Your task to perform on an android device: turn off translation in the chrome app Image 0: 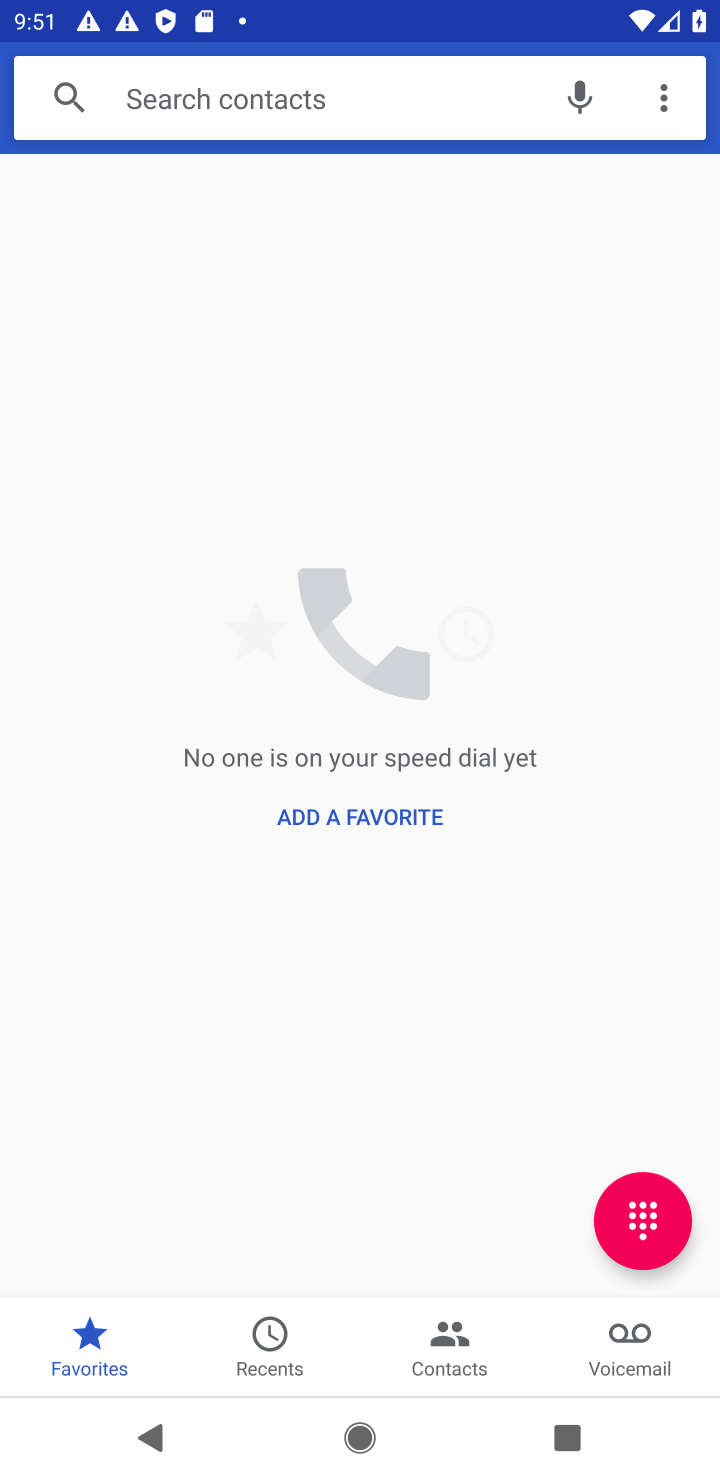
Step 0: press home button
Your task to perform on an android device: turn off translation in the chrome app Image 1: 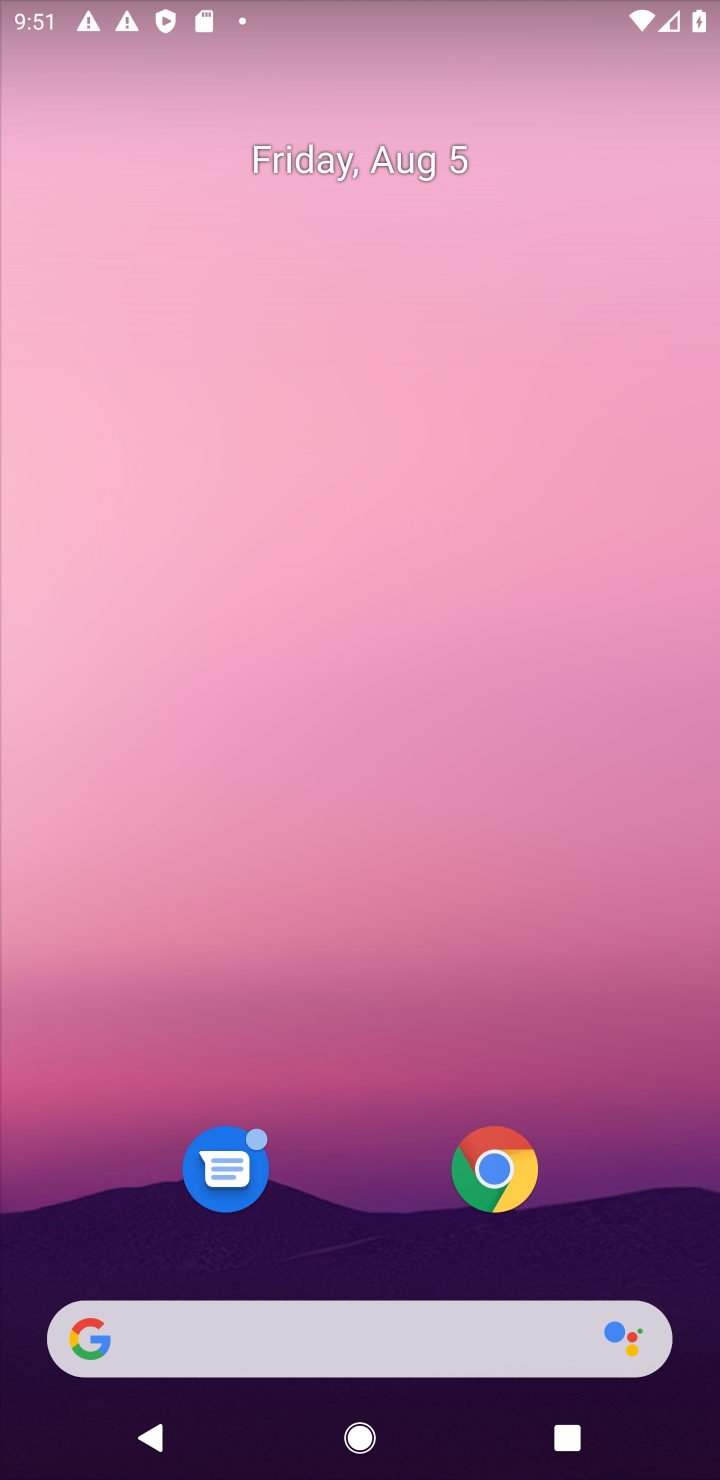
Step 1: click (492, 1169)
Your task to perform on an android device: turn off translation in the chrome app Image 2: 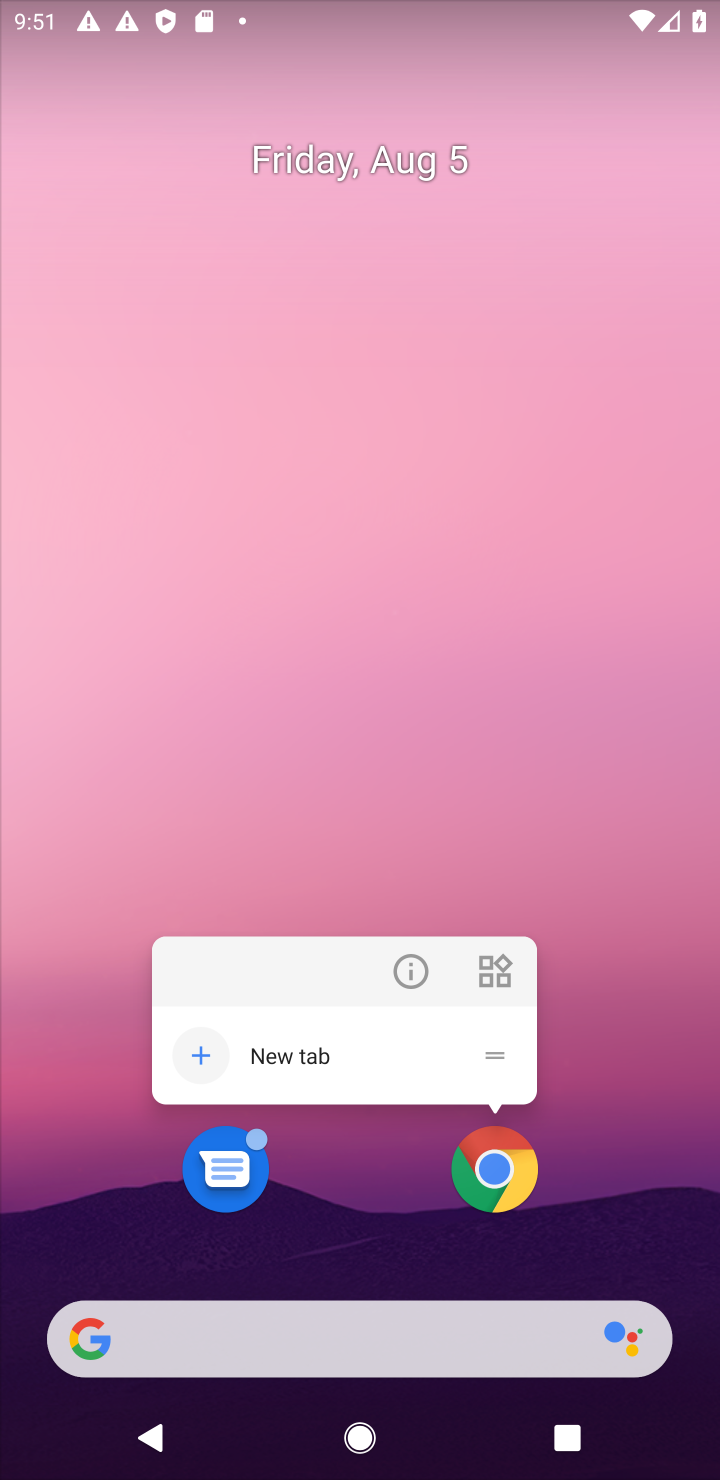
Step 2: click (497, 1172)
Your task to perform on an android device: turn off translation in the chrome app Image 3: 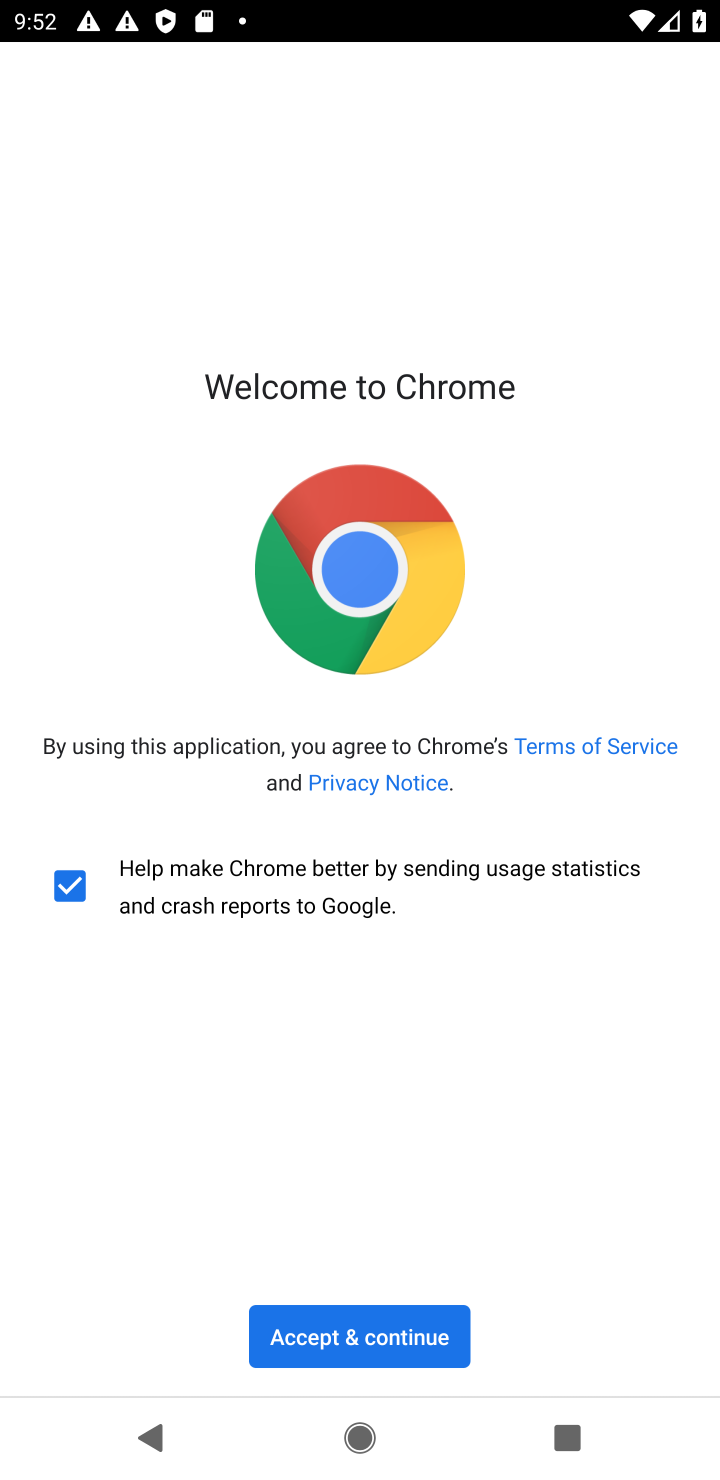
Step 3: click (340, 1348)
Your task to perform on an android device: turn off translation in the chrome app Image 4: 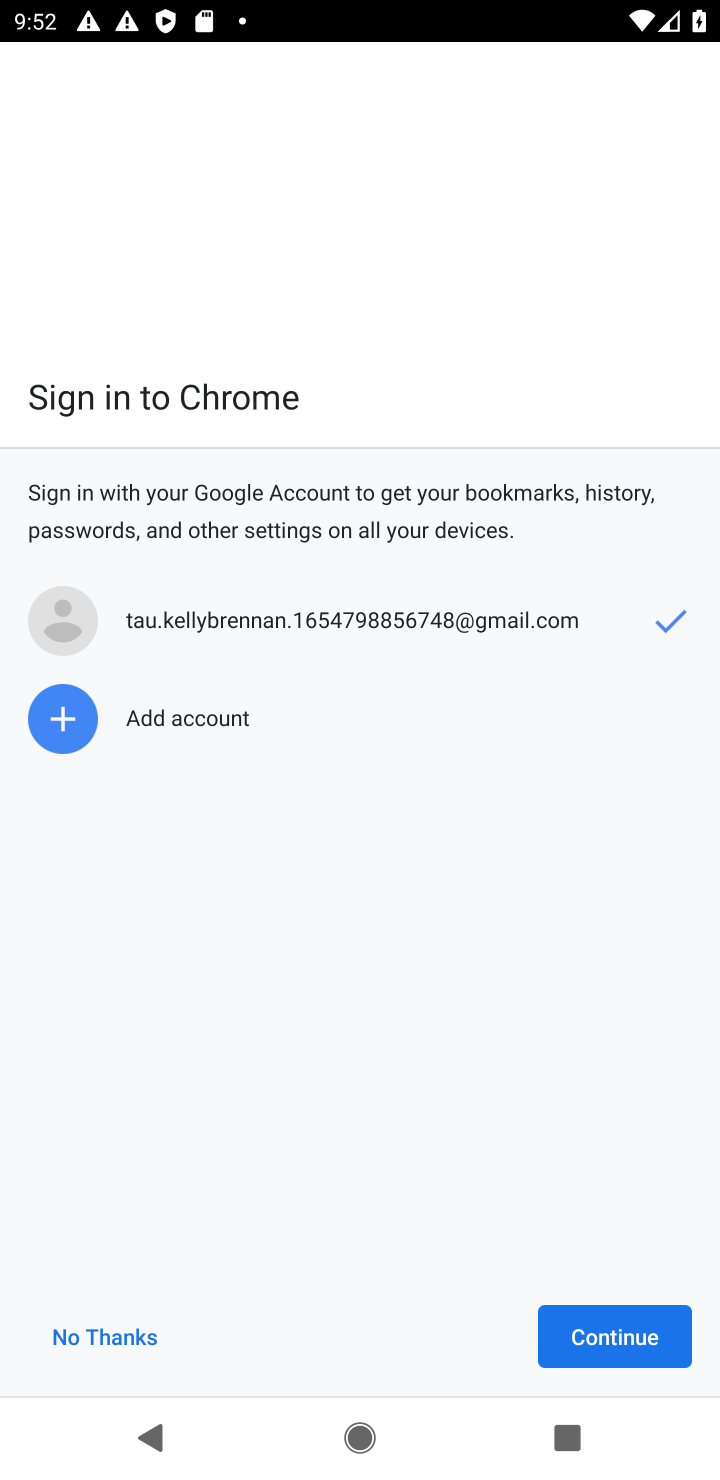
Step 4: click (610, 1337)
Your task to perform on an android device: turn off translation in the chrome app Image 5: 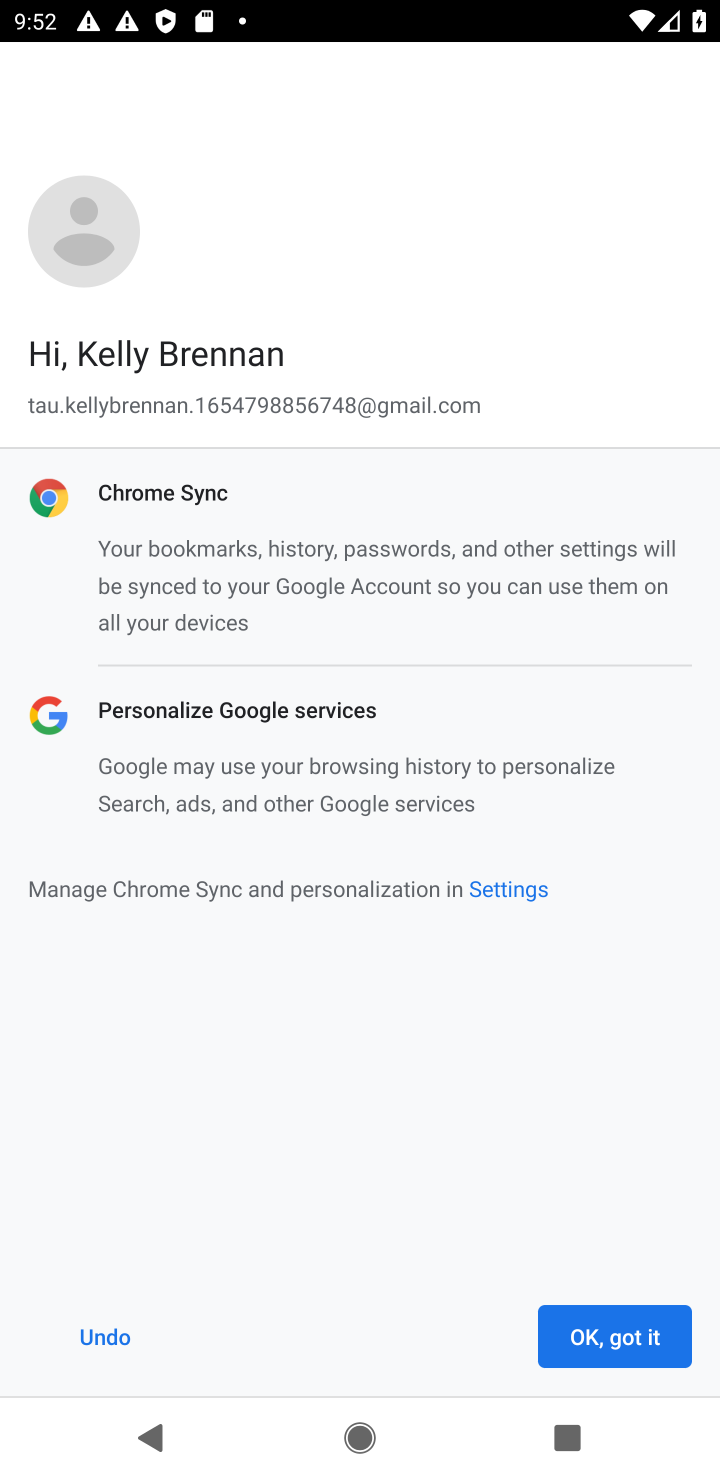
Step 5: click (634, 1338)
Your task to perform on an android device: turn off translation in the chrome app Image 6: 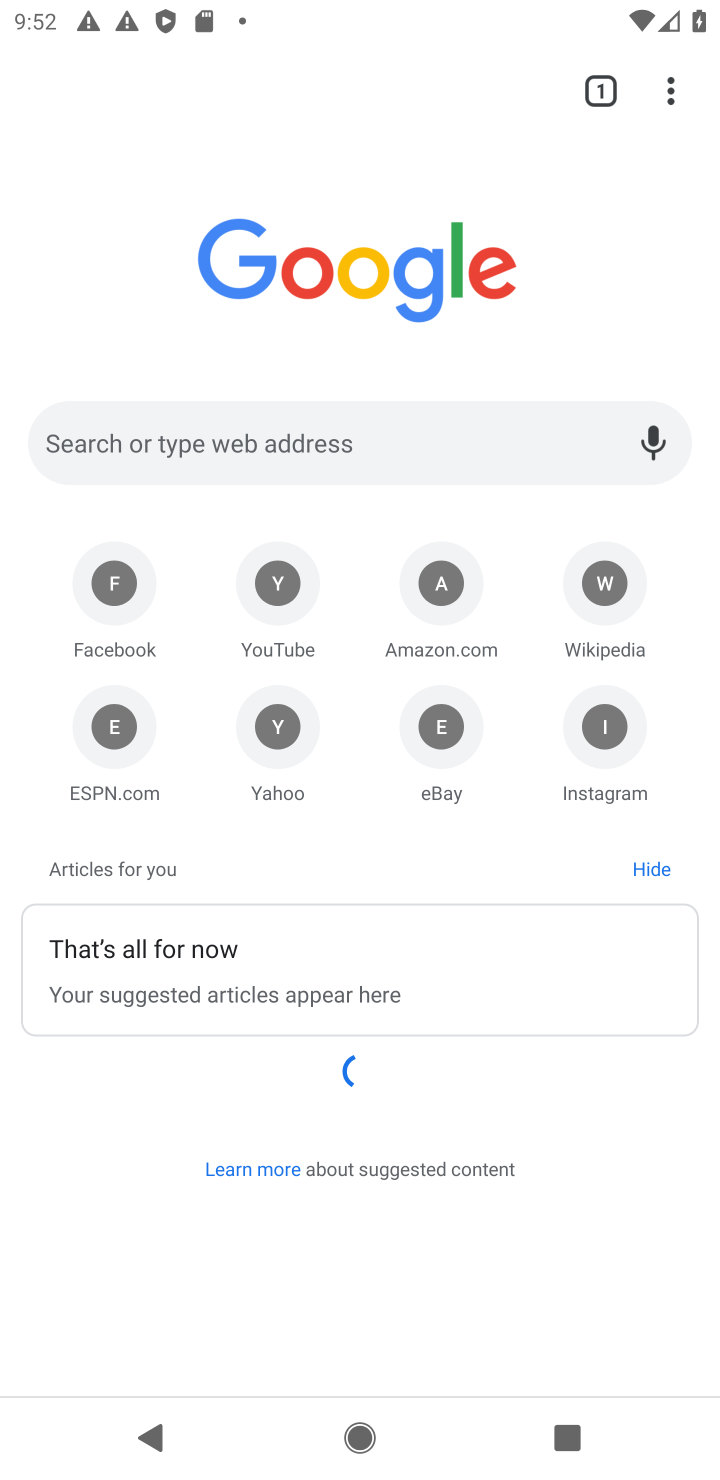
Step 6: click (667, 111)
Your task to perform on an android device: turn off translation in the chrome app Image 7: 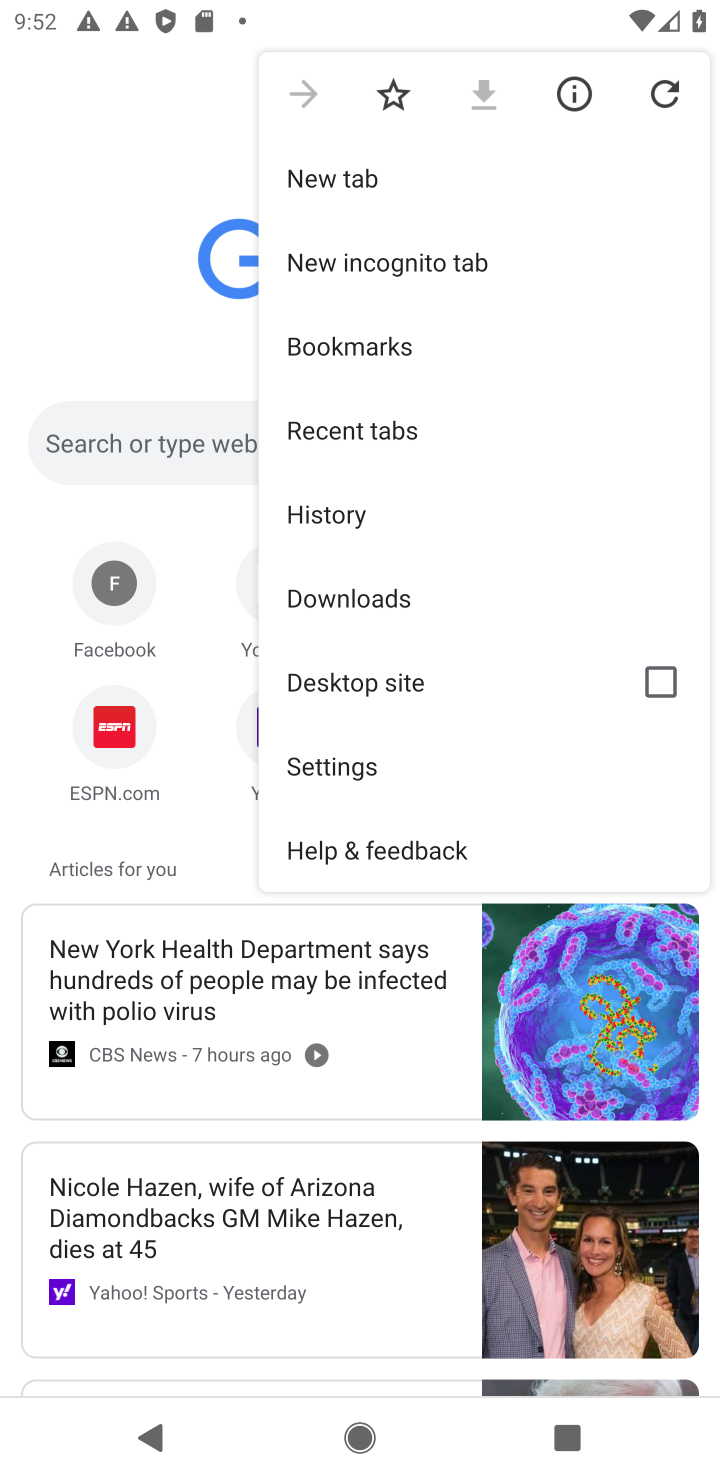
Step 7: click (339, 758)
Your task to perform on an android device: turn off translation in the chrome app Image 8: 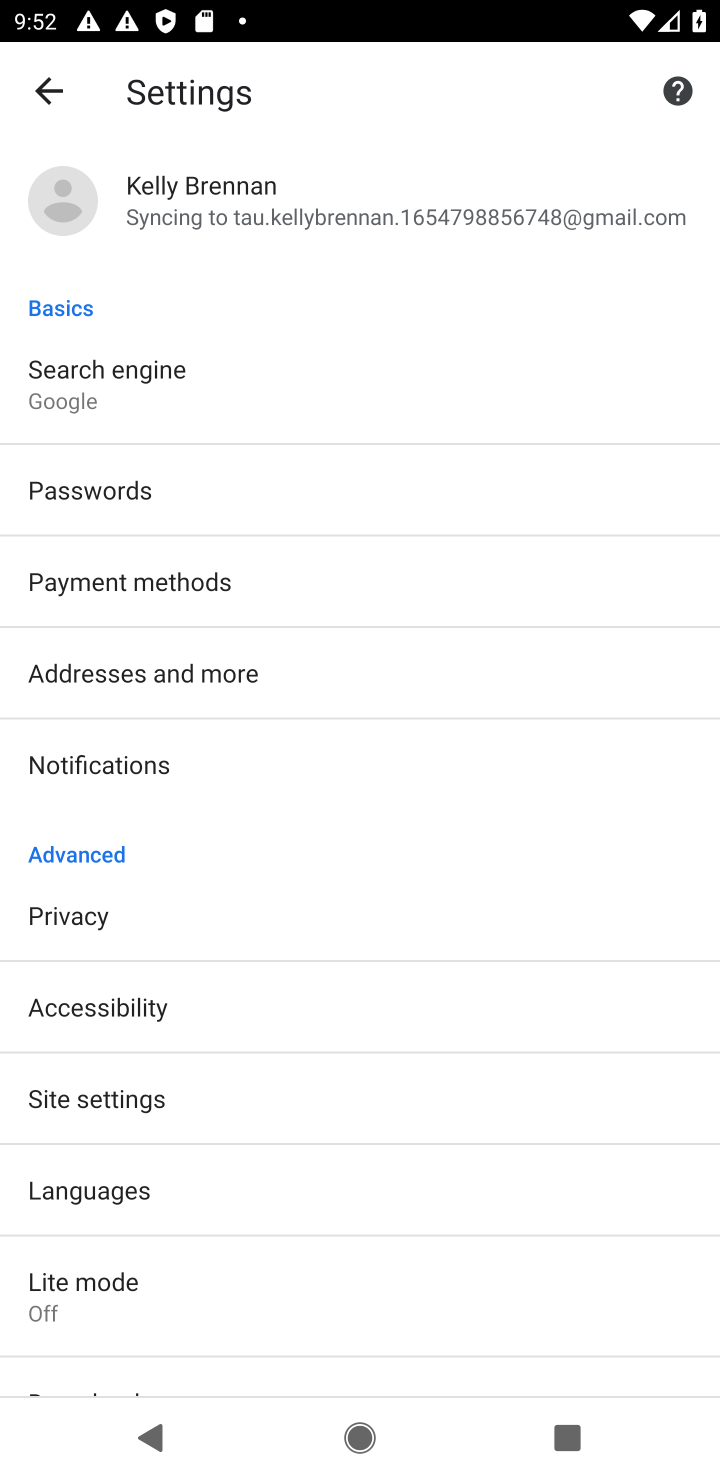
Step 8: click (104, 1200)
Your task to perform on an android device: turn off translation in the chrome app Image 9: 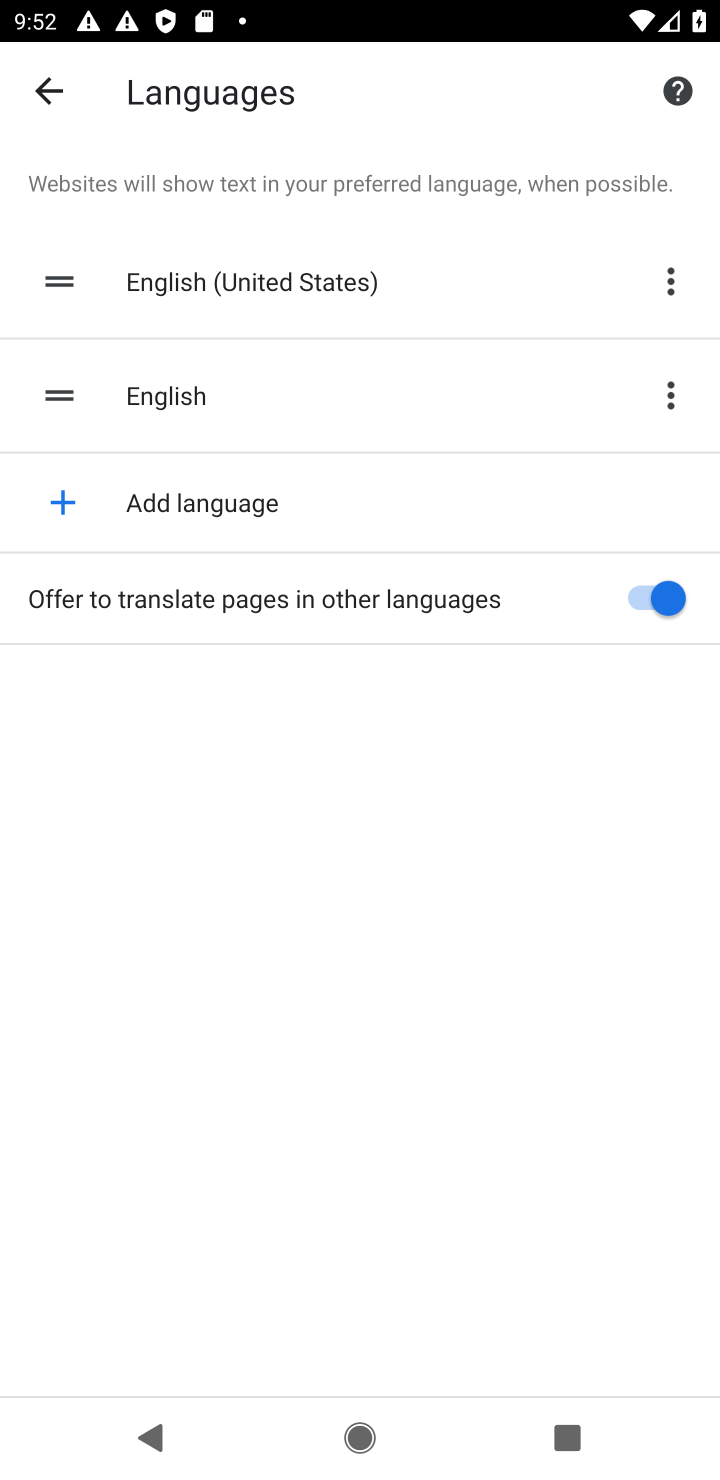
Step 9: click (637, 593)
Your task to perform on an android device: turn off translation in the chrome app Image 10: 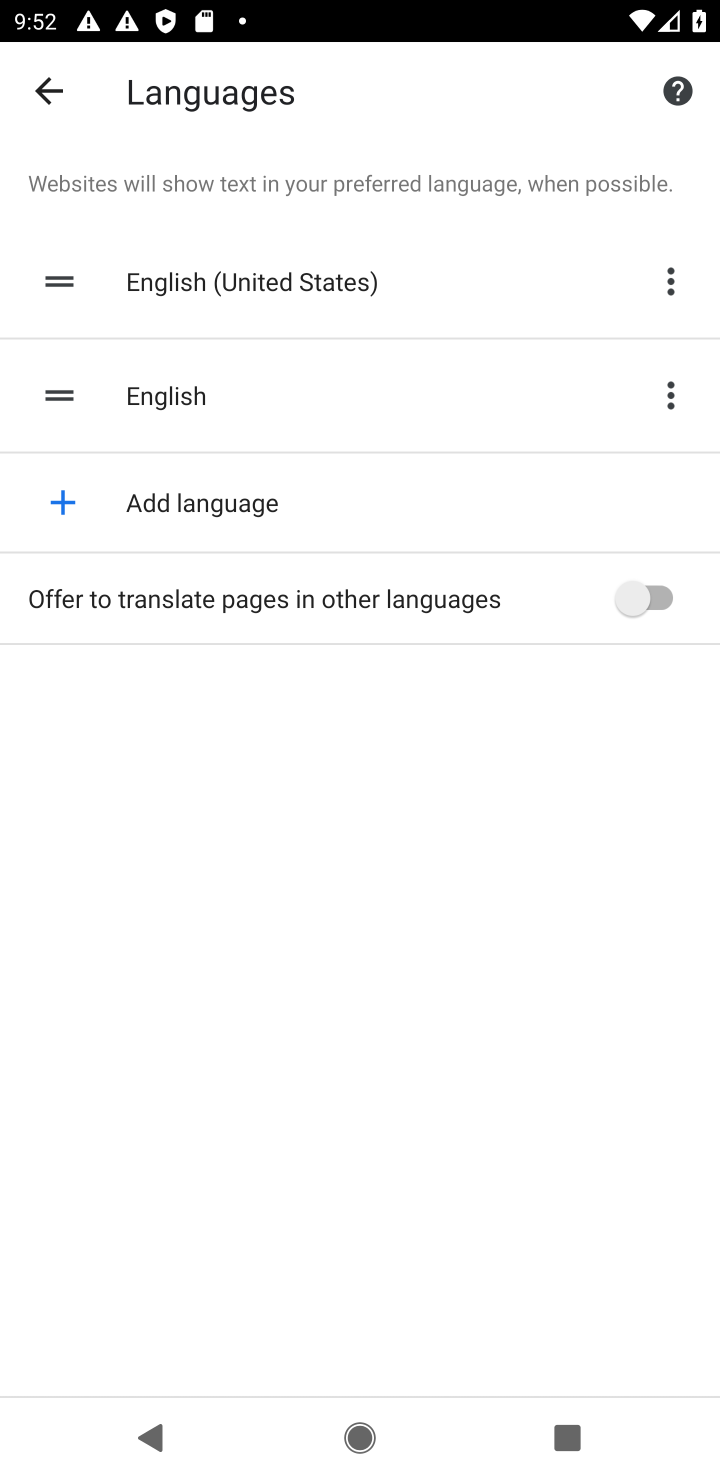
Step 10: task complete